Your task to perform on an android device: Open location settings Image 0: 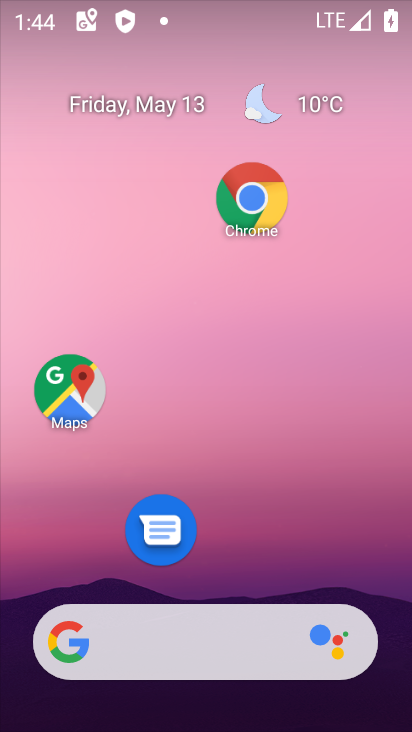
Step 0: drag from (226, 595) to (173, 53)
Your task to perform on an android device: Open location settings Image 1: 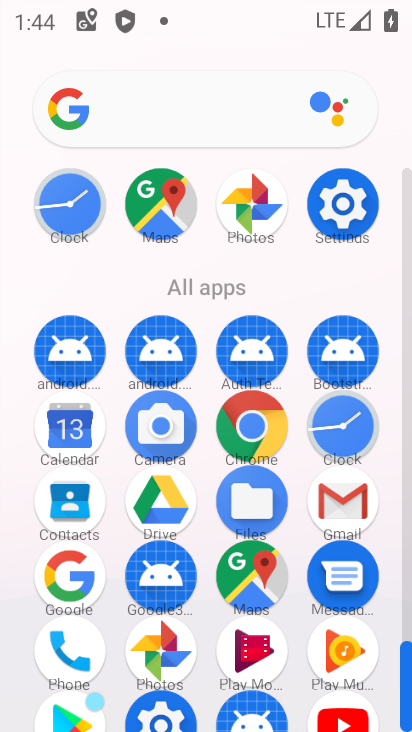
Step 1: click (341, 208)
Your task to perform on an android device: Open location settings Image 2: 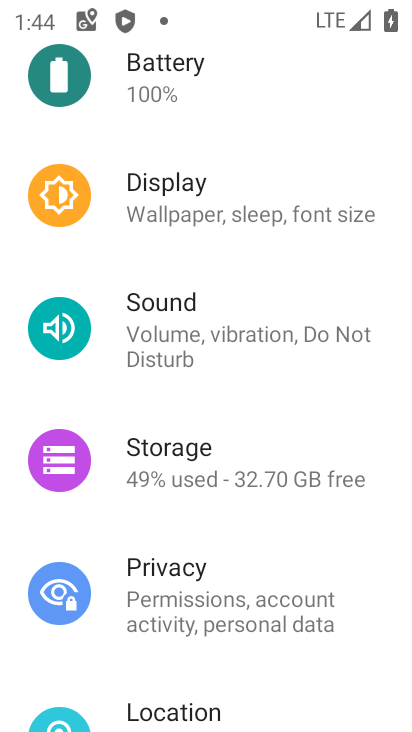
Step 2: click (147, 707)
Your task to perform on an android device: Open location settings Image 3: 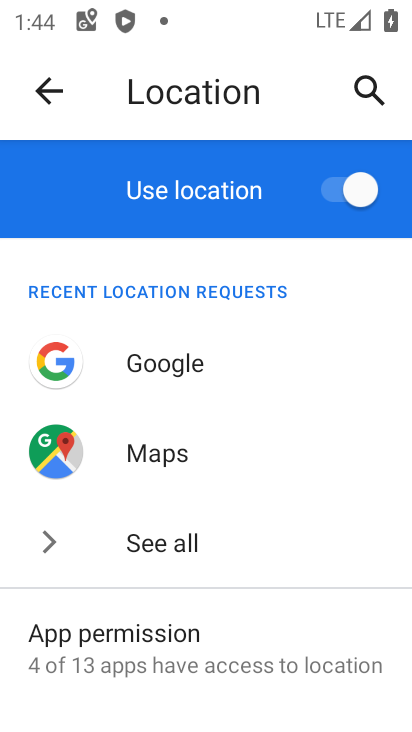
Step 3: task complete